Your task to perform on an android device: find which apps use the phone's location Image 0: 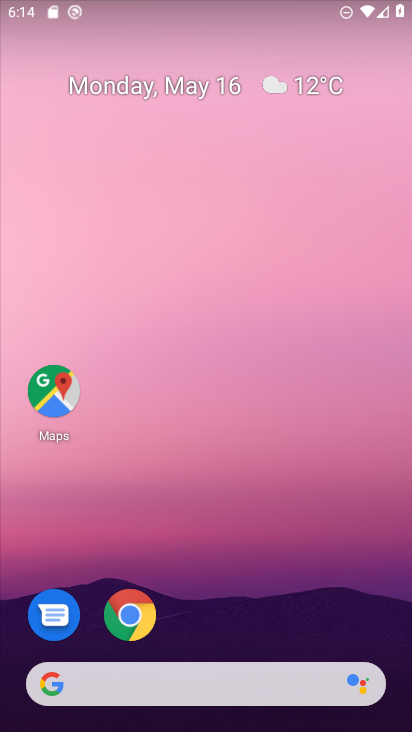
Step 0: drag from (201, 594) to (231, 201)
Your task to perform on an android device: find which apps use the phone's location Image 1: 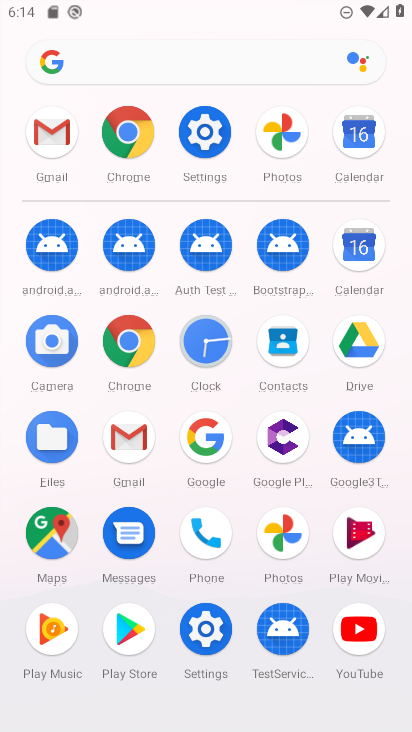
Step 1: click (198, 140)
Your task to perform on an android device: find which apps use the phone's location Image 2: 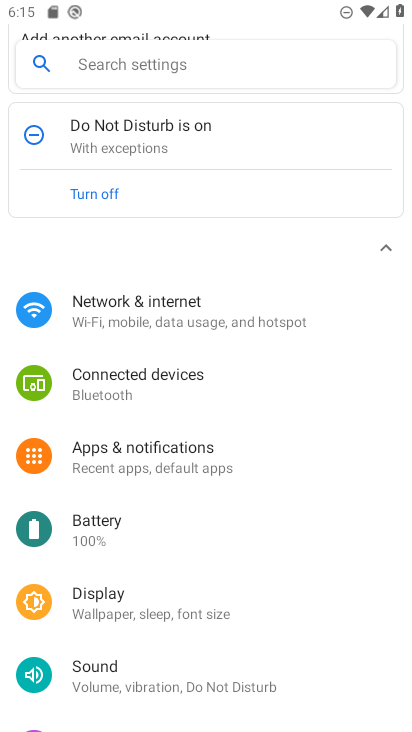
Step 2: drag from (149, 607) to (193, 396)
Your task to perform on an android device: find which apps use the phone's location Image 3: 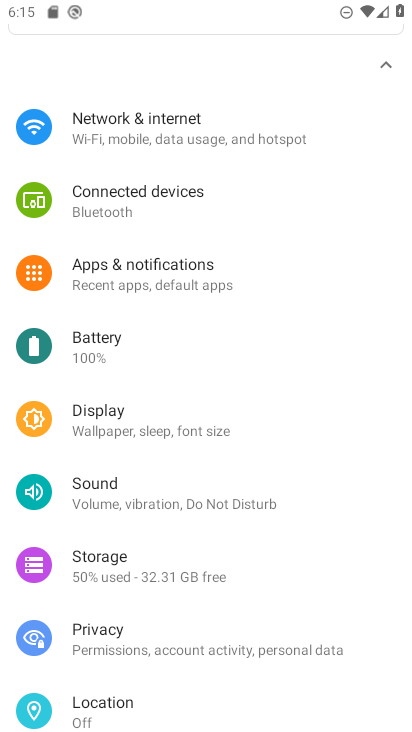
Step 3: click (99, 711)
Your task to perform on an android device: find which apps use the phone's location Image 4: 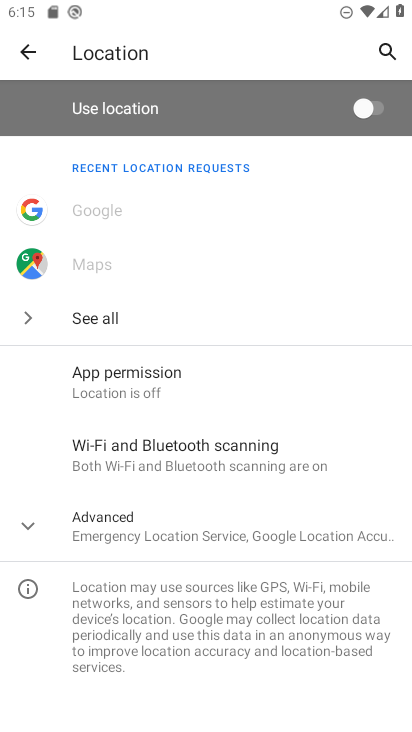
Step 4: click (113, 380)
Your task to perform on an android device: find which apps use the phone's location Image 5: 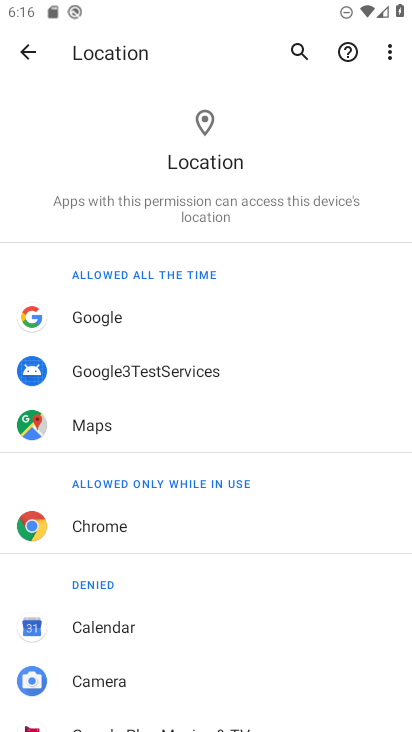
Step 5: task complete